Your task to perform on an android device: Open the stopwatch Image 0: 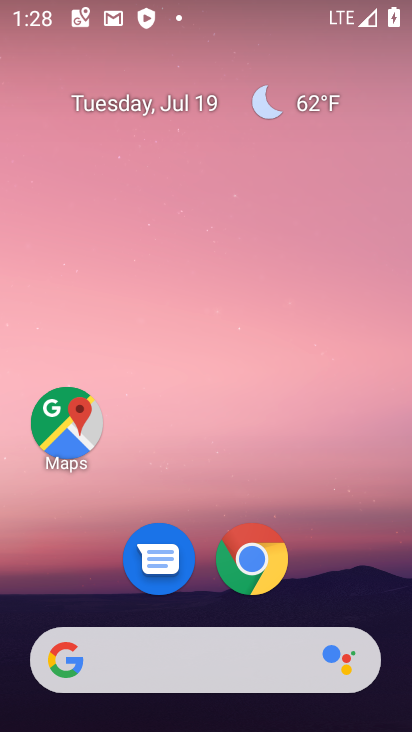
Step 0: drag from (223, 634) to (214, 137)
Your task to perform on an android device: Open the stopwatch Image 1: 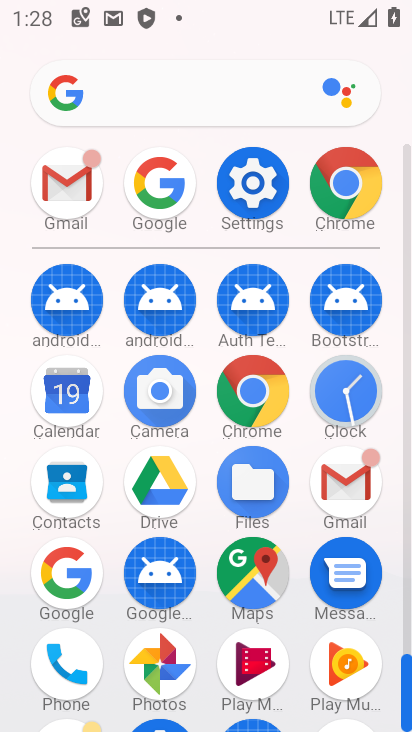
Step 1: click (366, 398)
Your task to perform on an android device: Open the stopwatch Image 2: 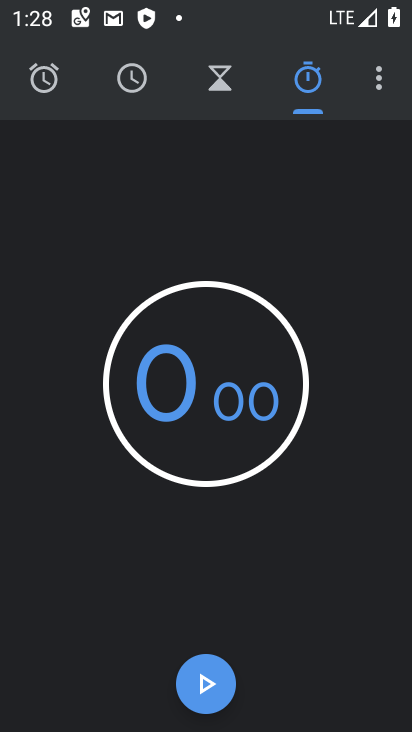
Step 2: task complete